Your task to perform on an android device: Clear all items from cart on newegg.com. Add "asus rog" to the cart on newegg.com Image 0: 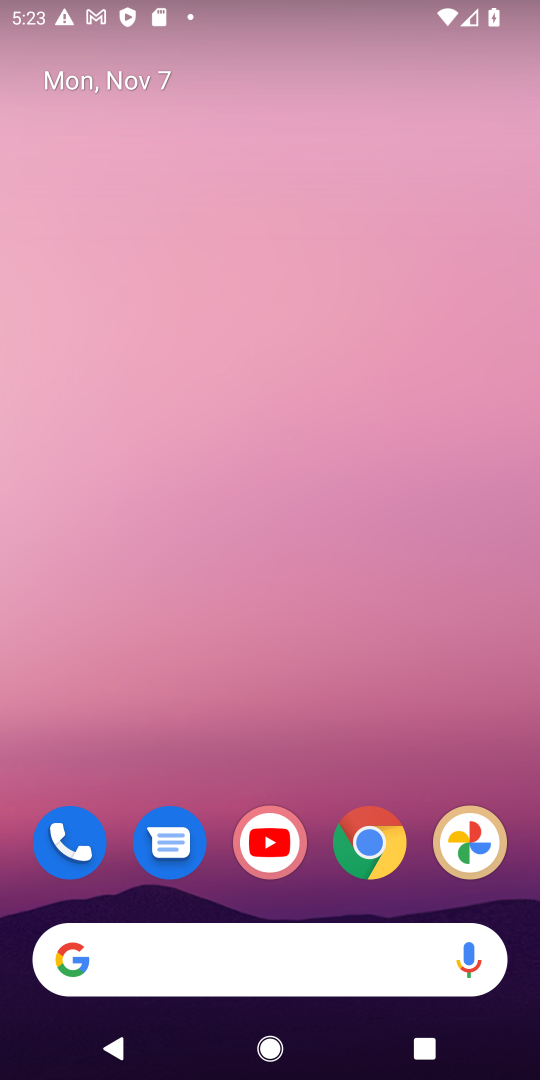
Step 0: drag from (351, 901) to (233, 90)
Your task to perform on an android device: Clear all items from cart on newegg.com. Add "asus rog" to the cart on newegg.com Image 1: 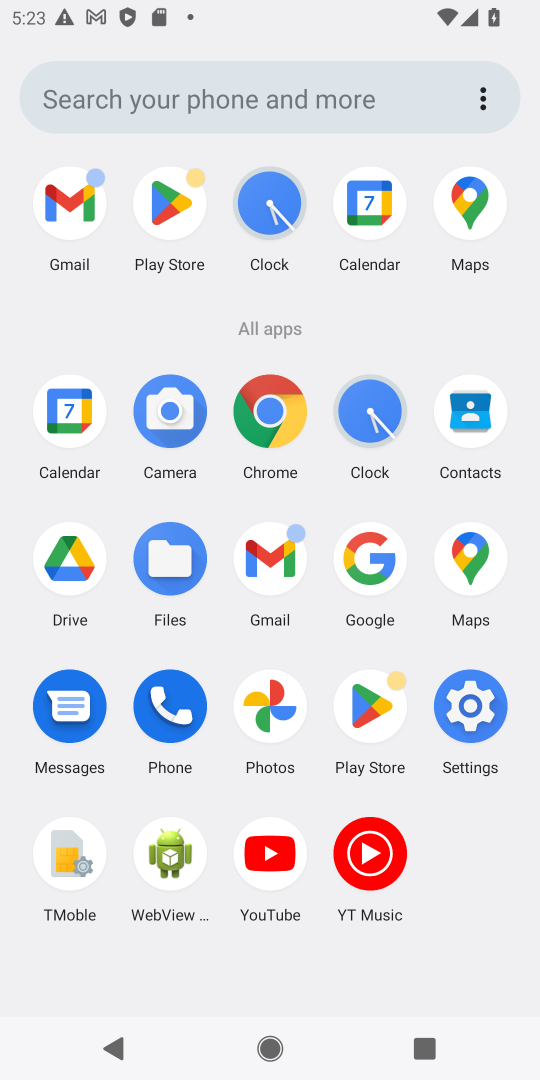
Step 1: click (247, 399)
Your task to perform on an android device: Clear all items from cart on newegg.com. Add "asus rog" to the cart on newegg.com Image 2: 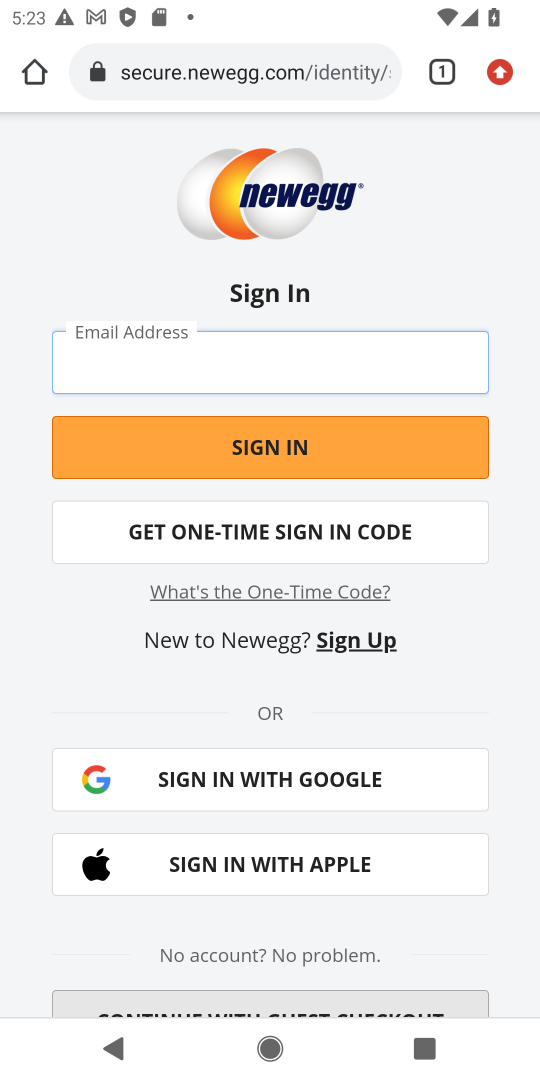
Step 2: press back button
Your task to perform on an android device: Clear all items from cart on newegg.com. Add "asus rog" to the cart on newegg.com Image 3: 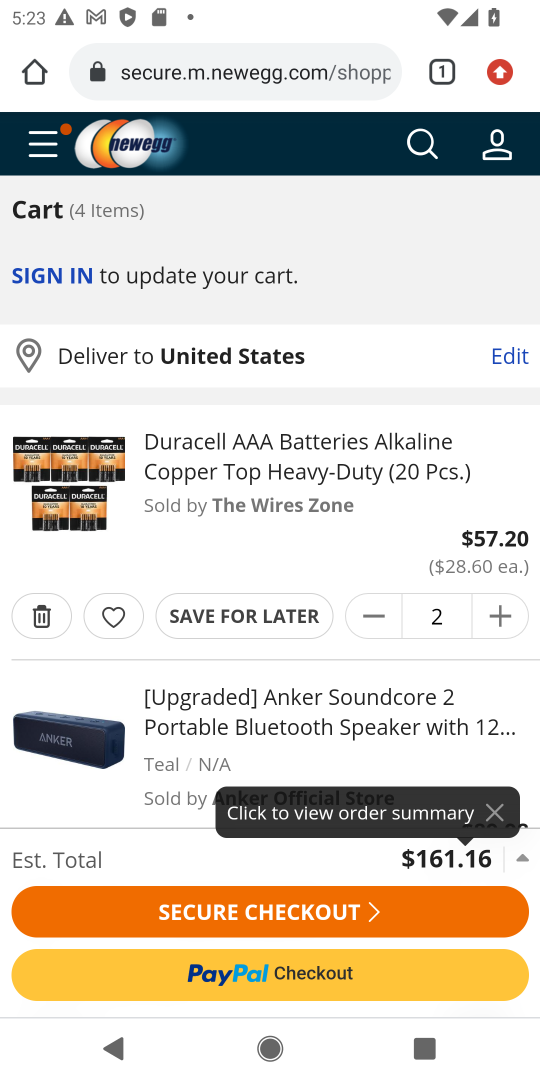
Step 3: click (41, 621)
Your task to perform on an android device: Clear all items from cart on newegg.com. Add "asus rog" to the cart on newegg.com Image 4: 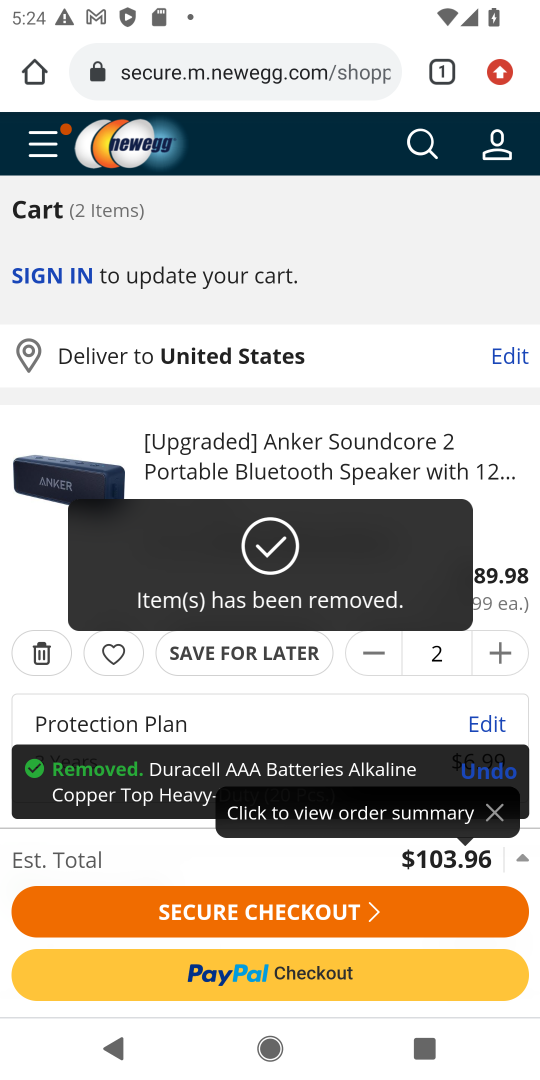
Step 4: click (40, 657)
Your task to perform on an android device: Clear all items from cart on newegg.com. Add "asus rog" to the cart on newegg.com Image 5: 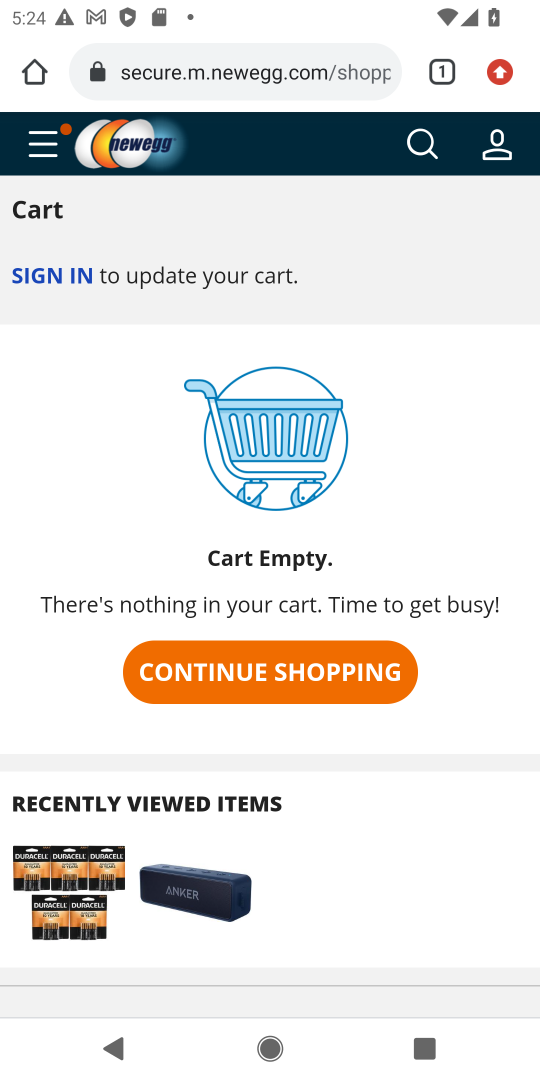
Step 5: click (408, 143)
Your task to perform on an android device: Clear all items from cart on newegg.com. Add "asus rog" to the cart on newegg.com Image 6: 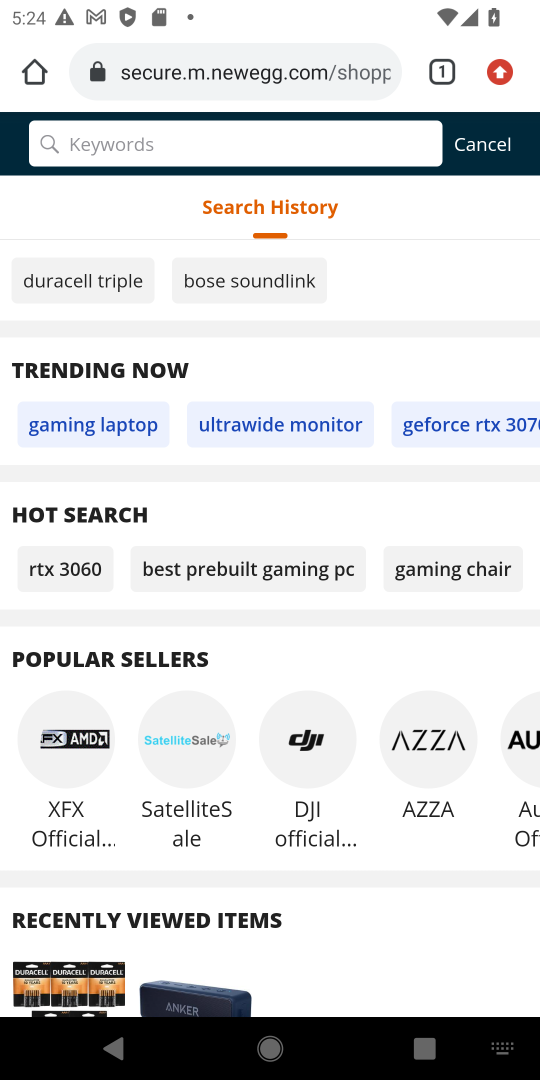
Step 6: type "asus rog"
Your task to perform on an android device: Clear all items from cart on newegg.com. Add "asus rog" to the cart on newegg.com Image 7: 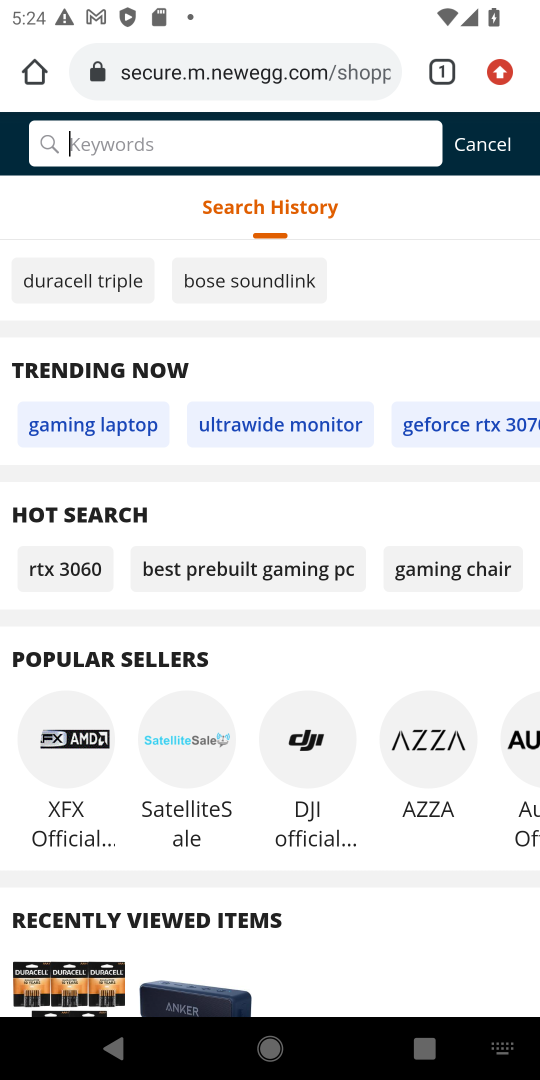
Step 7: press enter
Your task to perform on an android device: Clear all items from cart on newegg.com. Add "asus rog" to the cart on newegg.com Image 8: 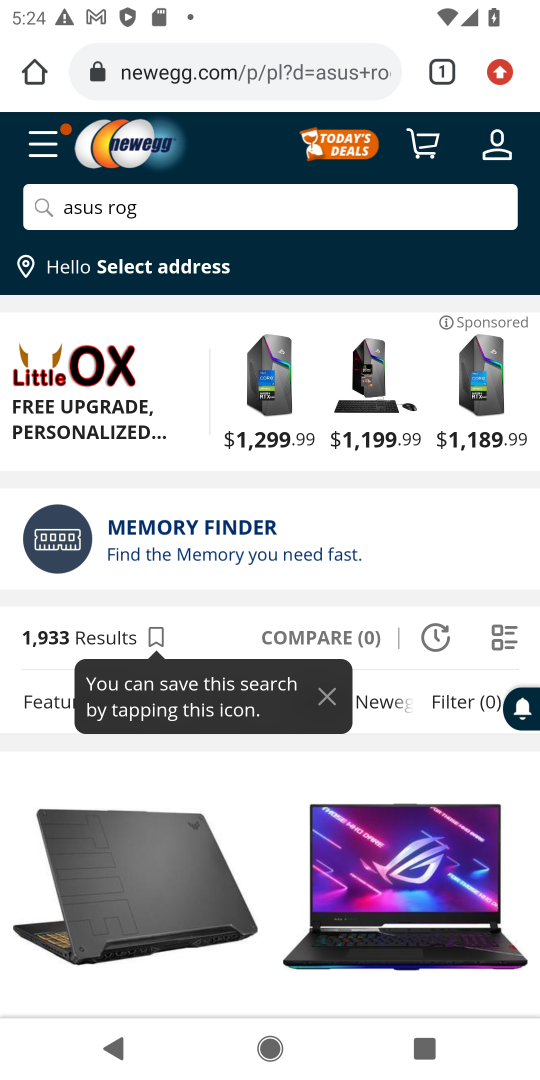
Step 8: click (384, 421)
Your task to perform on an android device: Clear all items from cart on newegg.com. Add "asus rog" to the cart on newegg.com Image 9: 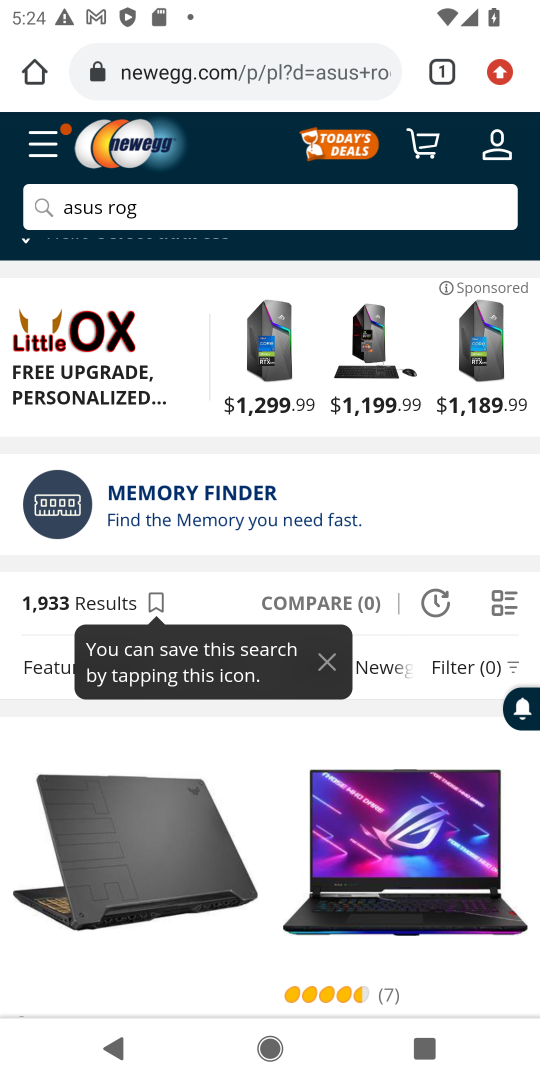
Step 9: drag from (146, 813) to (273, 478)
Your task to perform on an android device: Clear all items from cart on newegg.com. Add "asus rog" to the cart on newegg.com Image 10: 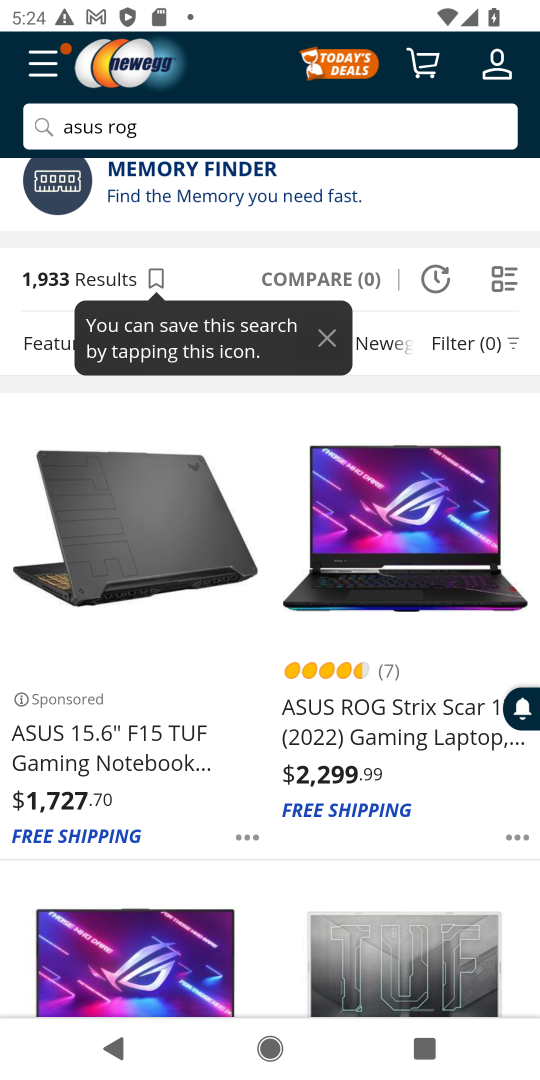
Step 10: click (77, 604)
Your task to perform on an android device: Clear all items from cart on newegg.com. Add "asus rog" to the cart on newegg.com Image 11: 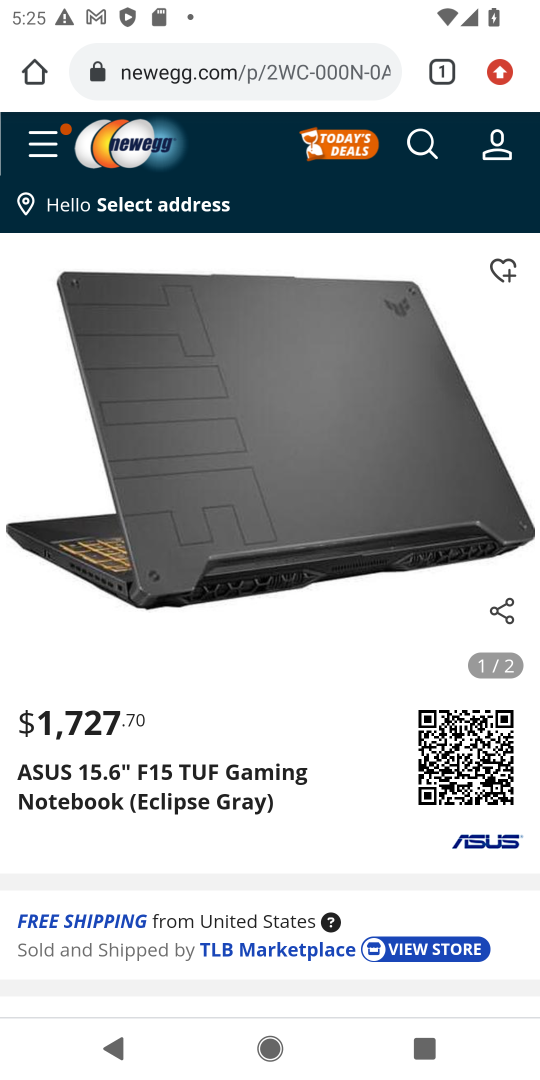
Step 11: drag from (225, 872) to (287, 485)
Your task to perform on an android device: Clear all items from cart on newegg.com. Add "asus rog" to the cart on newegg.com Image 12: 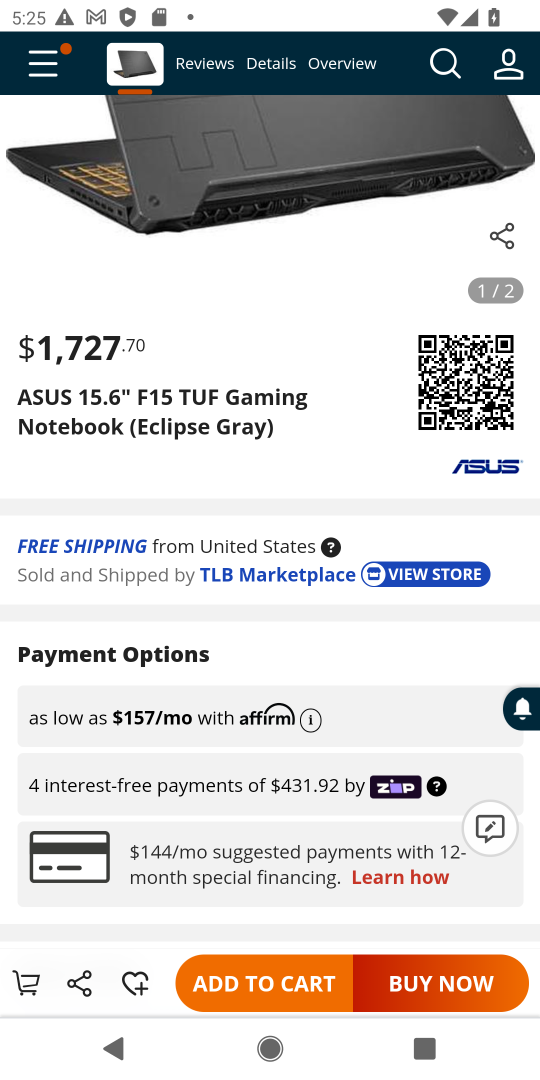
Step 12: click (245, 408)
Your task to perform on an android device: Clear all items from cart on newegg.com. Add "asus rog" to the cart on newegg.com Image 13: 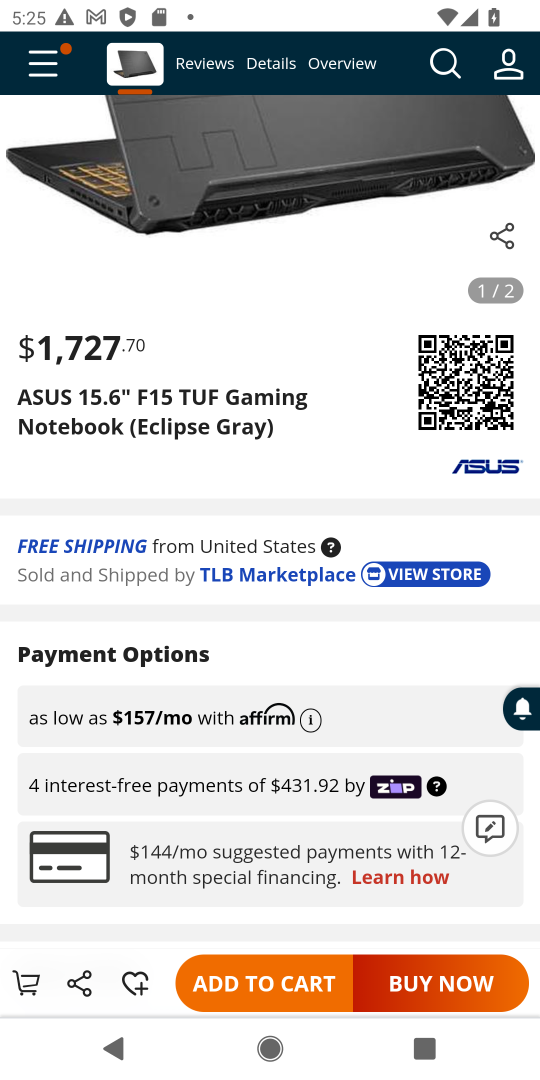
Step 13: click (259, 984)
Your task to perform on an android device: Clear all items from cart on newegg.com. Add "asus rog" to the cart on newegg.com Image 14: 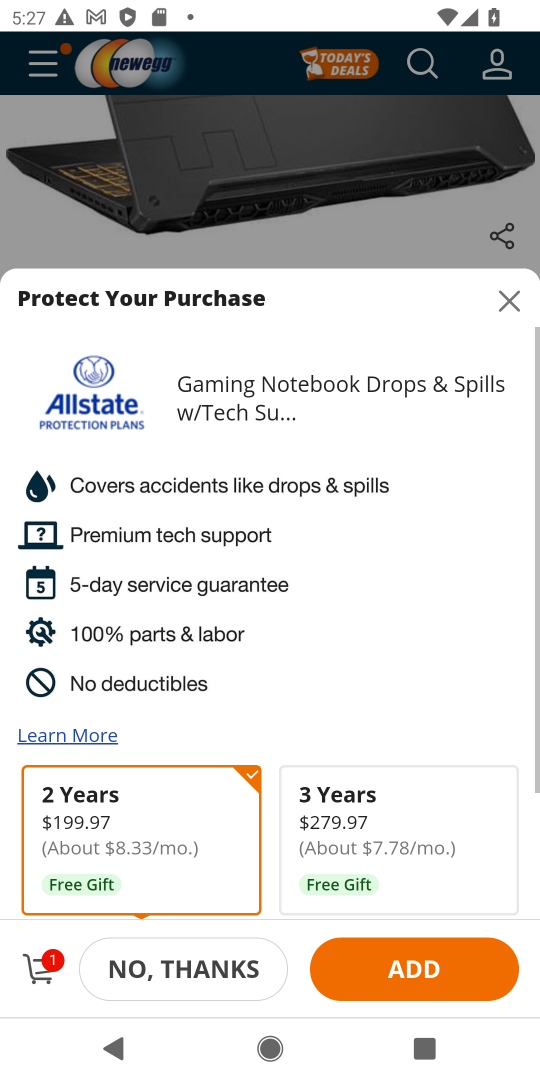
Step 14: task complete